Your task to perform on an android device: Do I have any events this weekend? Image 0: 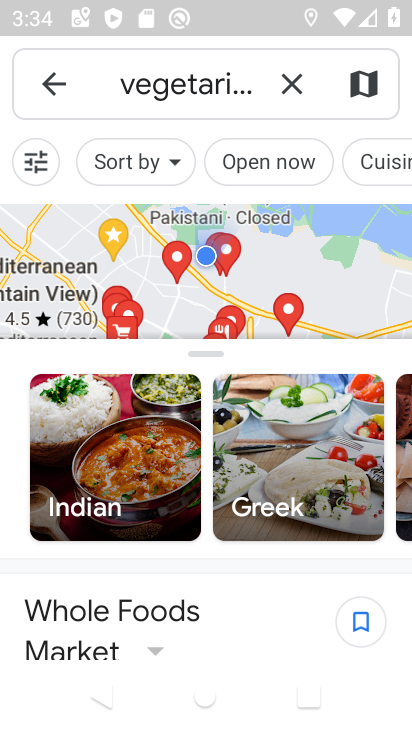
Step 0: press home button
Your task to perform on an android device: Do I have any events this weekend? Image 1: 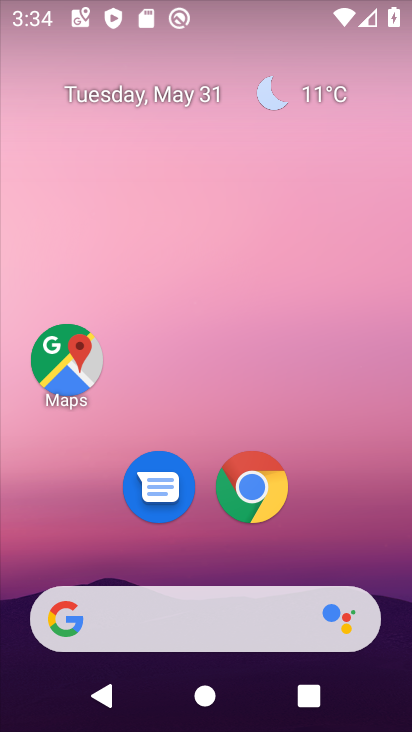
Step 1: drag from (328, 528) to (245, 81)
Your task to perform on an android device: Do I have any events this weekend? Image 2: 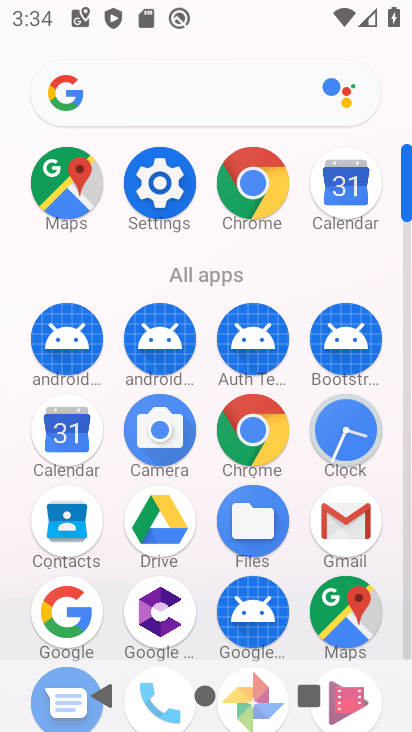
Step 2: click (338, 191)
Your task to perform on an android device: Do I have any events this weekend? Image 3: 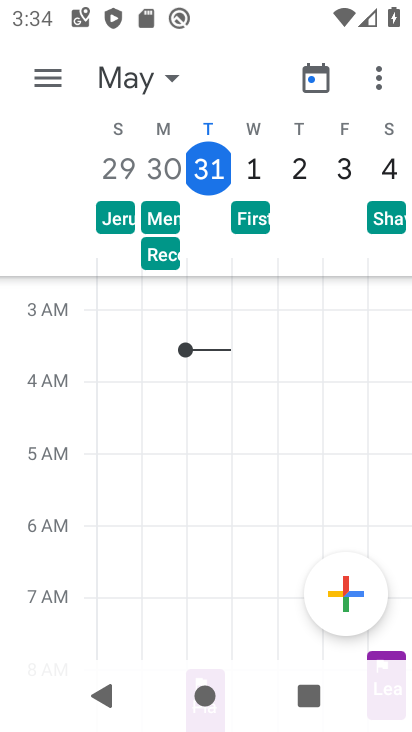
Step 3: click (310, 81)
Your task to perform on an android device: Do I have any events this weekend? Image 4: 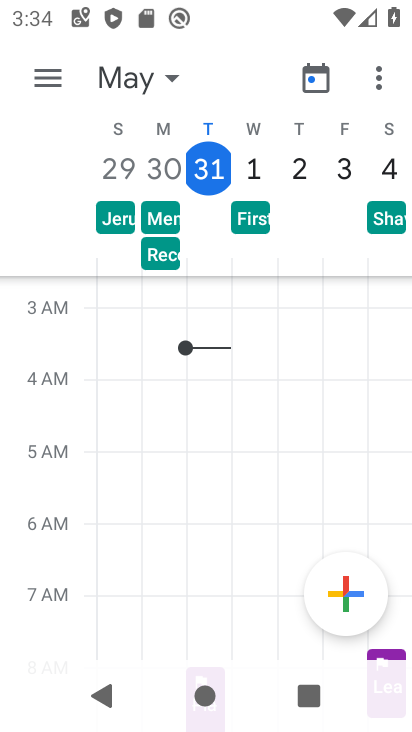
Step 4: click (172, 78)
Your task to perform on an android device: Do I have any events this weekend? Image 5: 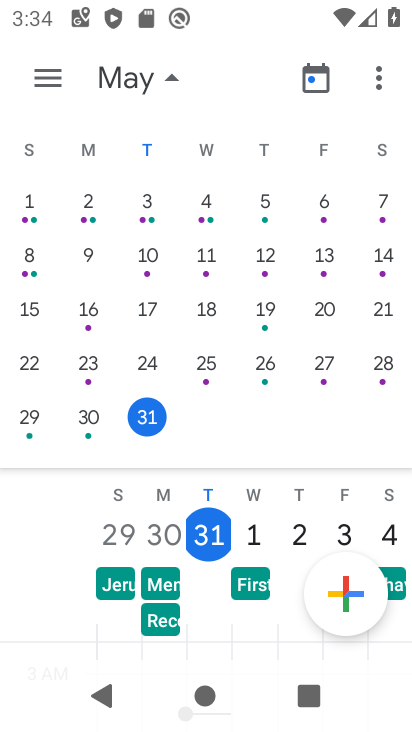
Step 5: drag from (358, 331) to (0, 310)
Your task to perform on an android device: Do I have any events this weekend? Image 6: 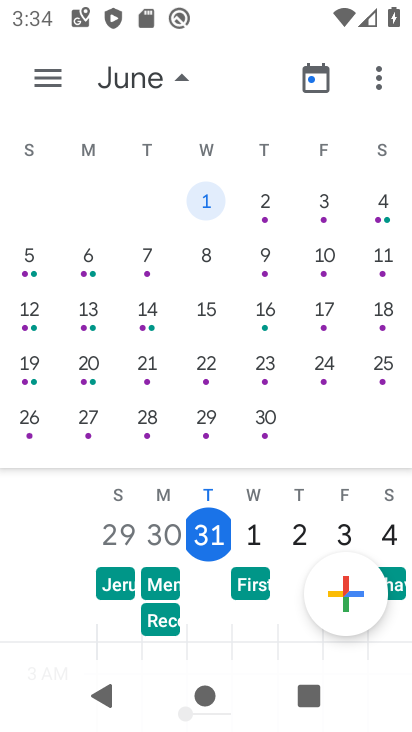
Step 6: click (380, 210)
Your task to perform on an android device: Do I have any events this weekend? Image 7: 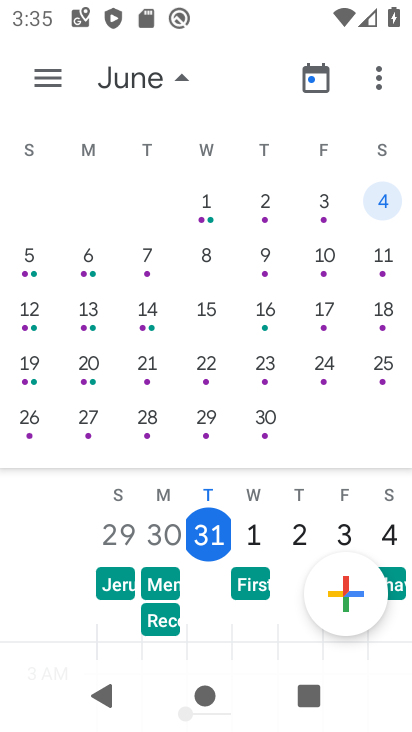
Step 7: click (48, 72)
Your task to perform on an android device: Do I have any events this weekend? Image 8: 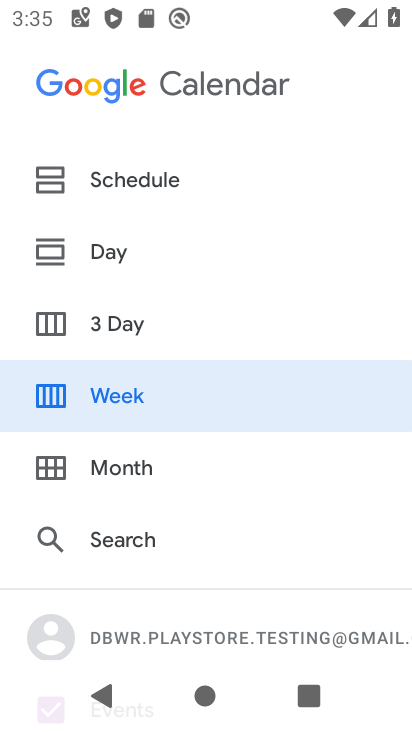
Step 8: click (111, 383)
Your task to perform on an android device: Do I have any events this weekend? Image 9: 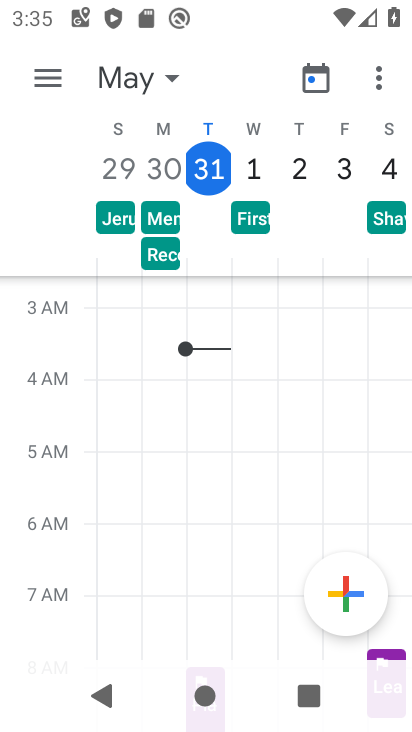
Step 9: task complete